Your task to perform on an android device: Search for Mexican restaurants on Maps Image 0: 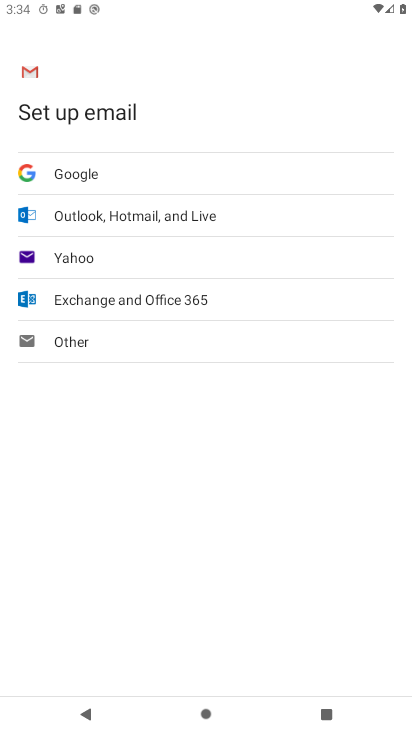
Step 0: press home button
Your task to perform on an android device: Search for Mexican restaurants on Maps Image 1: 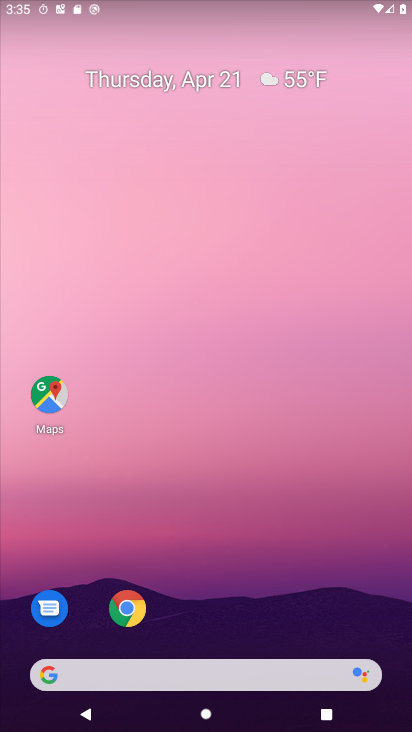
Step 1: click (46, 389)
Your task to perform on an android device: Search for Mexican restaurants on Maps Image 2: 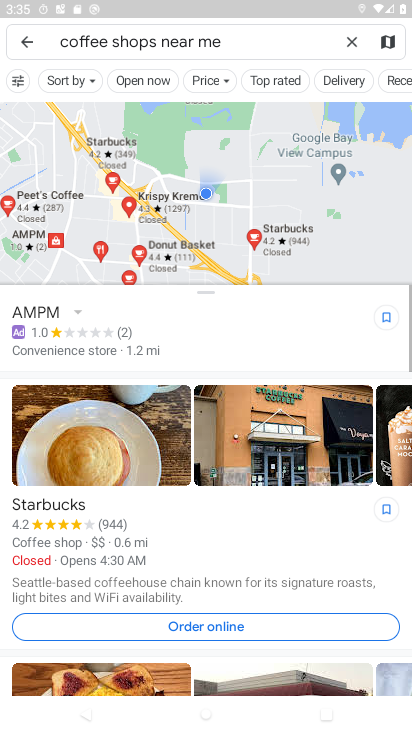
Step 2: click (351, 44)
Your task to perform on an android device: Search for Mexican restaurants on Maps Image 3: 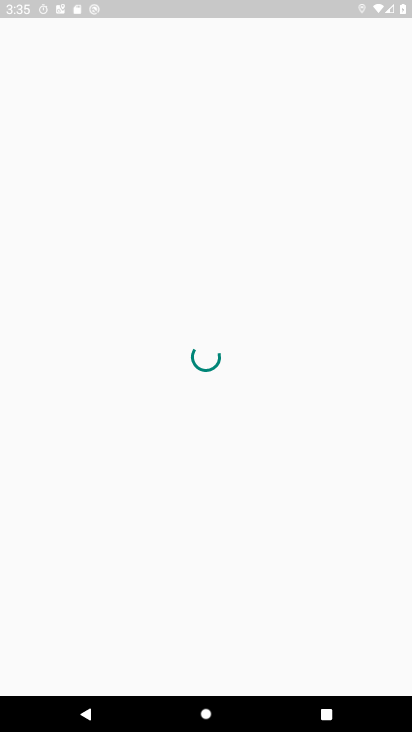
Step 3: click (281, 40)
Your task to perform on an android device: Search for Mexican restaurants on Maps Image 4: 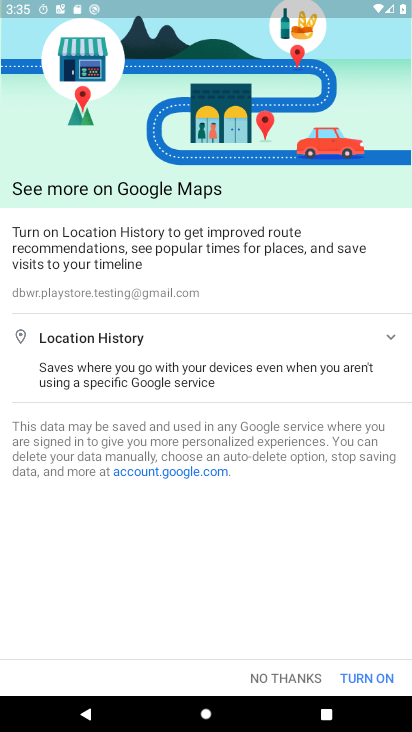
Step 4: click (280, 684)
Your task to perform on an android device: Search for Mexican restaurants on Maps Image 5: 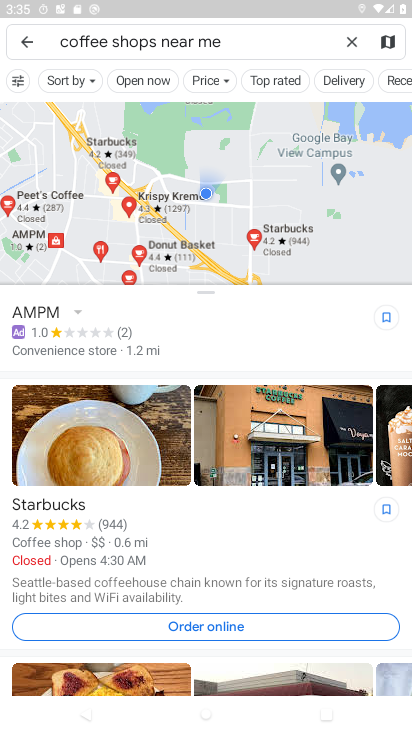
Step 5: click (350, 44)
Your task to perform on an android device: Search for Mexican restaurants on Maps Image 6: 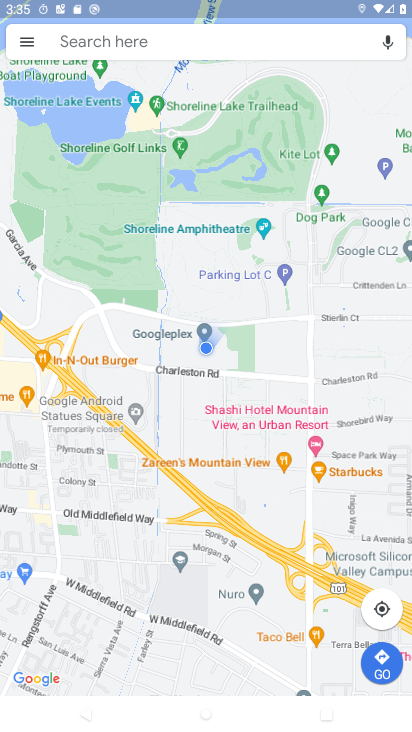
Step 6: click (135, 32)
Your task to perform on an android device: Search for Mexican restaurants on Maps Image 7: 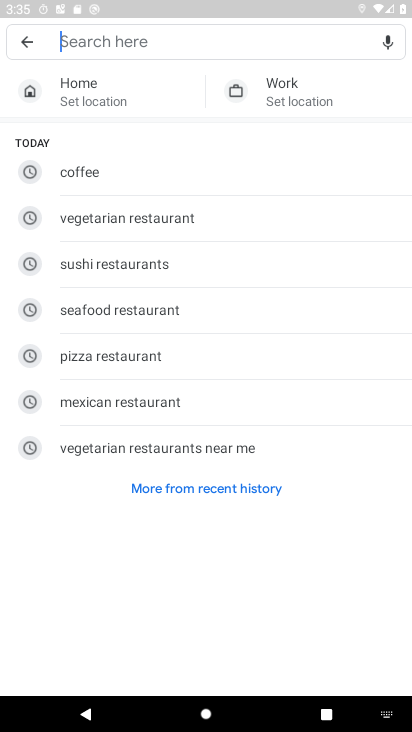
Step 7: type "Mexican restaurants"
Your task to perform on an android device: Search for Mexican restaurants on Maps Image 8: 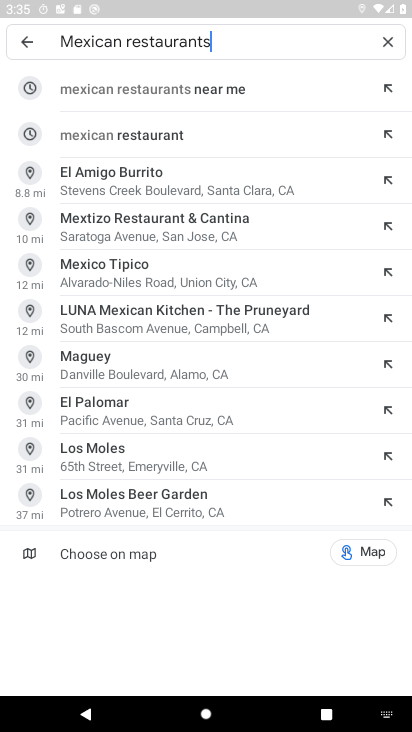
Step 8: click (198, 141)
Your task to perform on an android device: Search for Mexican restaurants on Maps Image 9: 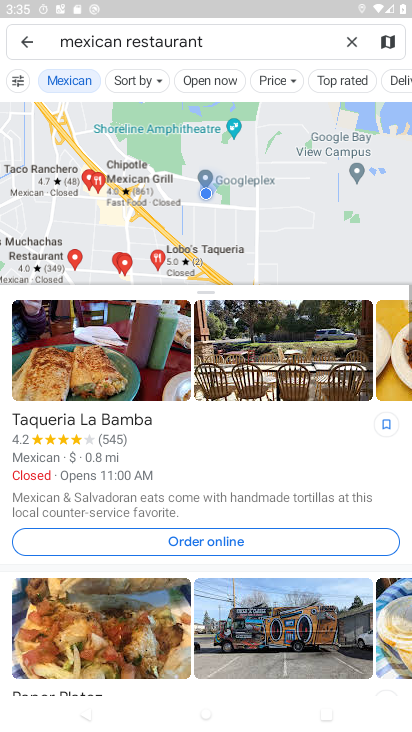
Step 9: task complete